Your task to perform on an android device: Open Google Chrome and click the shortcut for Amazon.com Image 0: 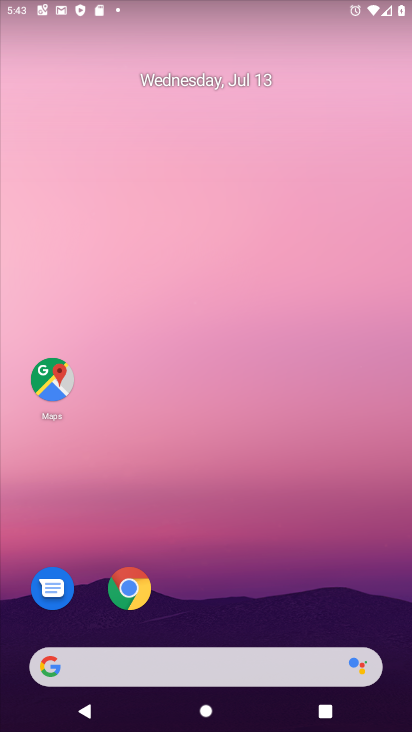
Step 0: click (120, 586)
Your task to perform on an android device: Open Google Chrome and click the shortcut for Amazon.com Image 1: 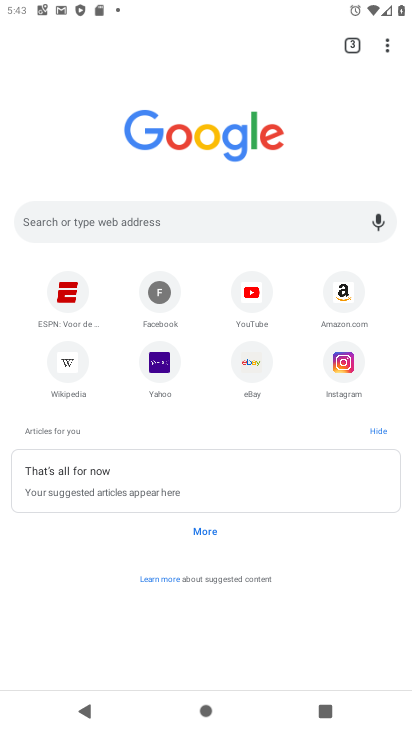
Step 1: click (341, 300)
Your task to perform on an android device: Open Google Chrome and click the shortcut for Amazon.com Image 2: 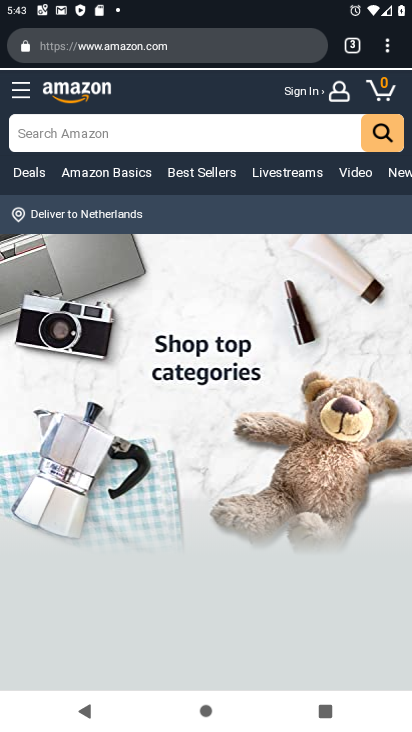
Step 2: task complete